Your task to perform on an android device: check battery use Image 0: 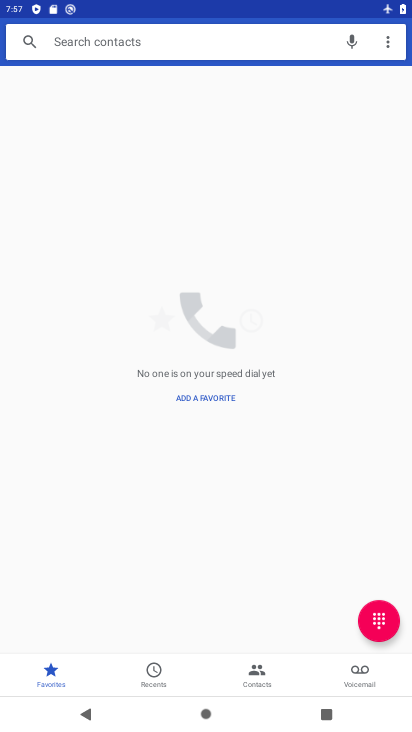
Step 0: press home button
Your task to perform on an android device: check battery use Image 1: 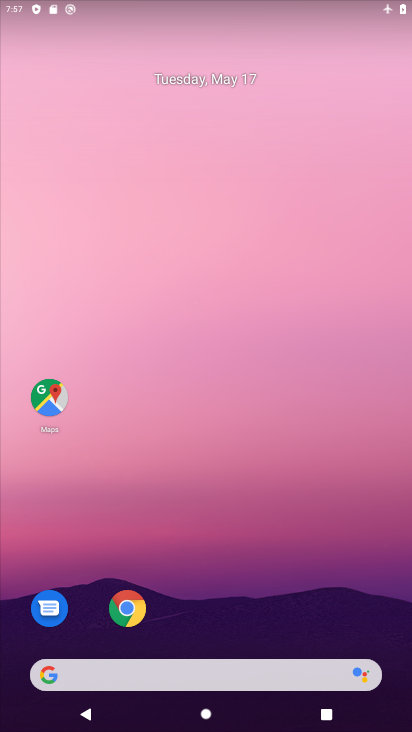
Step 1: drag from (357, 577) to (338, 203)
Your task to perform on an android device: check battery use Image 2: 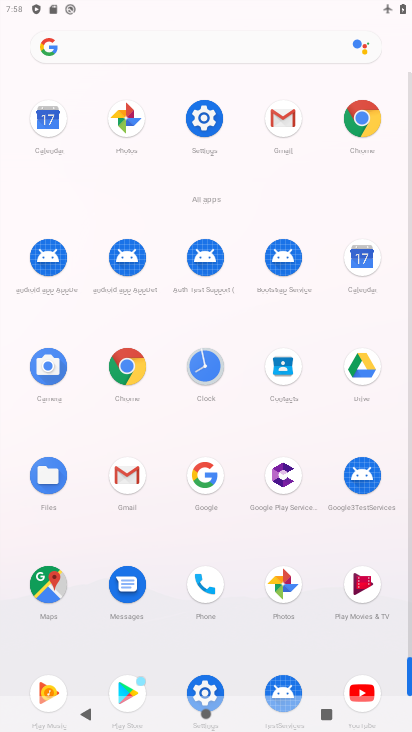
Step 2: click (220, 123)
Your task to perform on an android device: check battery use Image 3: 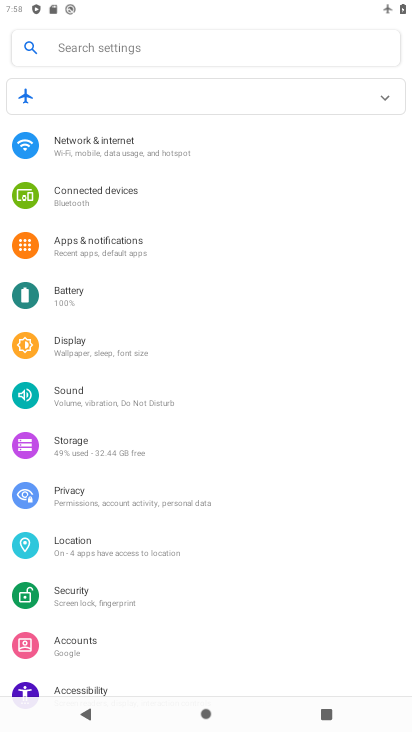
Step 3: click (68, 296)
Your task to perform on an android device: check battery use Image 4: 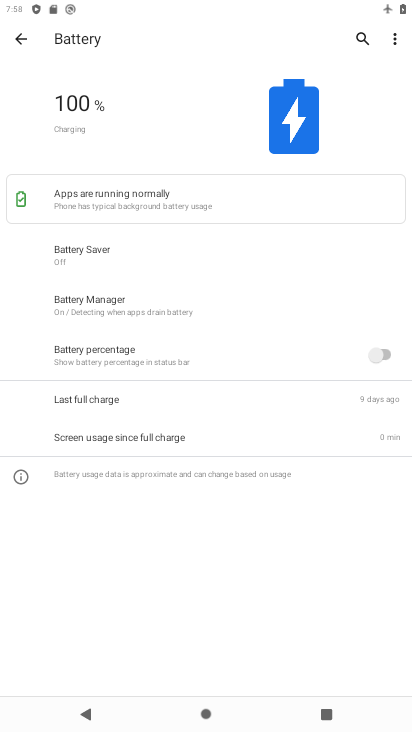
Step 4: task complete